Your task to perform on an android device: turn on improve location accuracy Image 0: 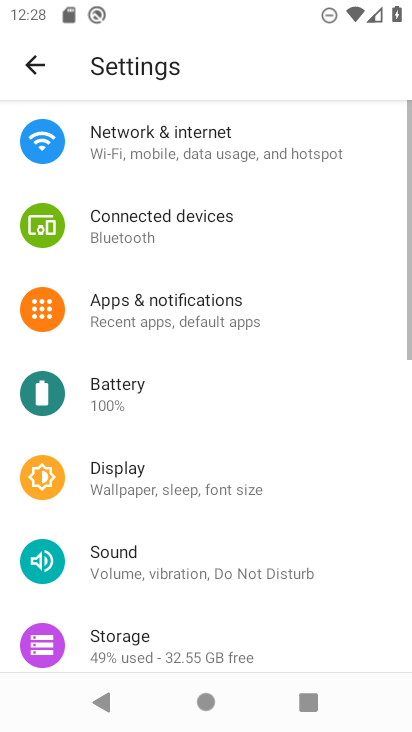
Step 0: press home button
Your task to perform on an android device: turn on improve location accuracy Image 1: 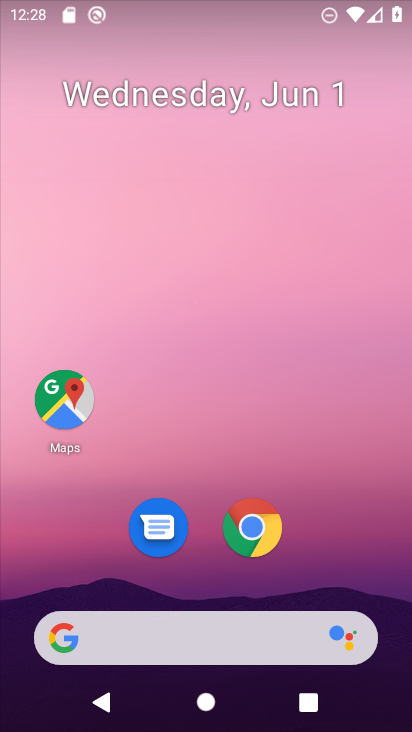
Step 1: click (65, 411)
Your task to perform on an android device: turn on improve location accuracy Image 2: 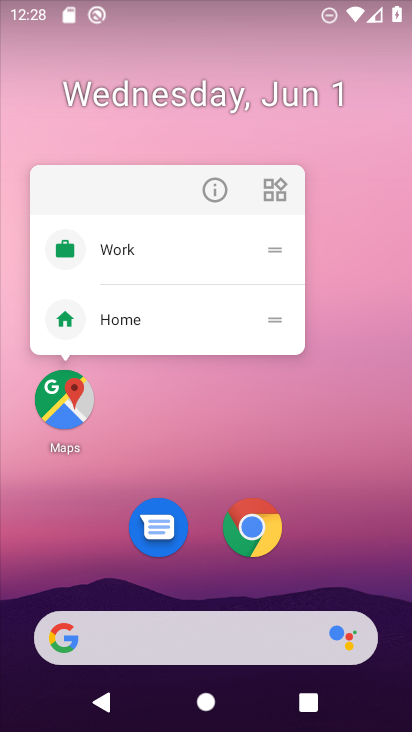
Step 2: click (128, 405)
Your task to perform on an android device: turn on improve location accuracy Image 3: 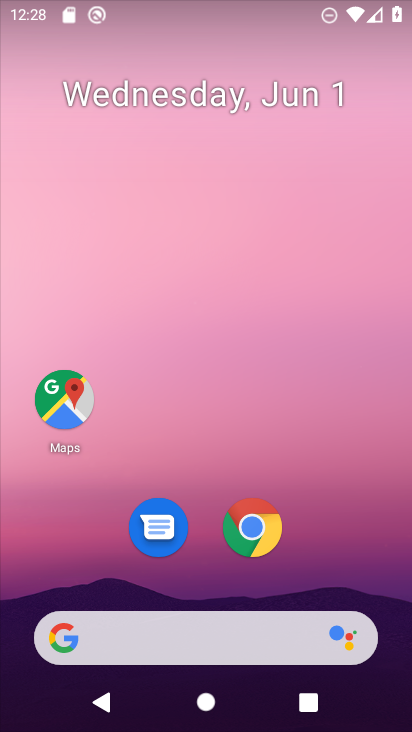
Step 3: click (43, 403)
Your task to perform on an android device: turn on improve location accuracy Image 4: 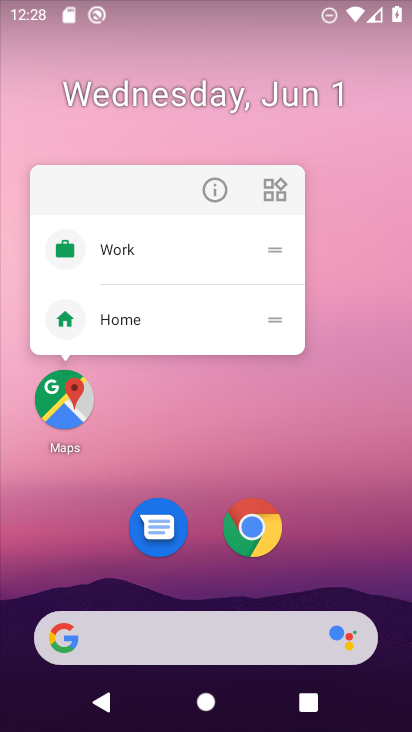
Step 4: click (43, 403)
Your task to perform on an android device: turn on improve location accuracy Image 5: 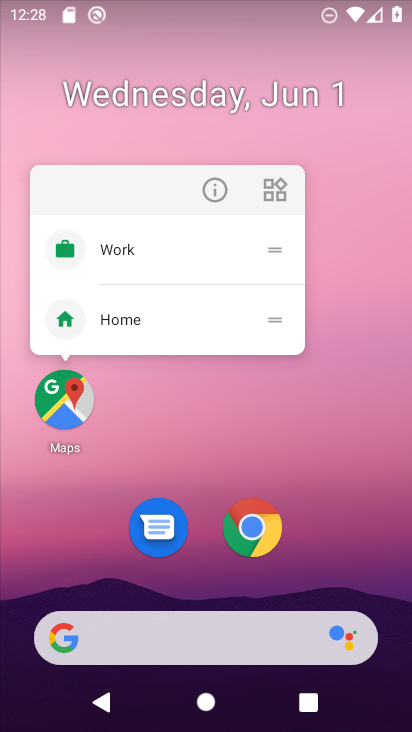
Step 5: click (43, 405)
Your task to perform on an android device: turn on improve location accuracy Image 6: 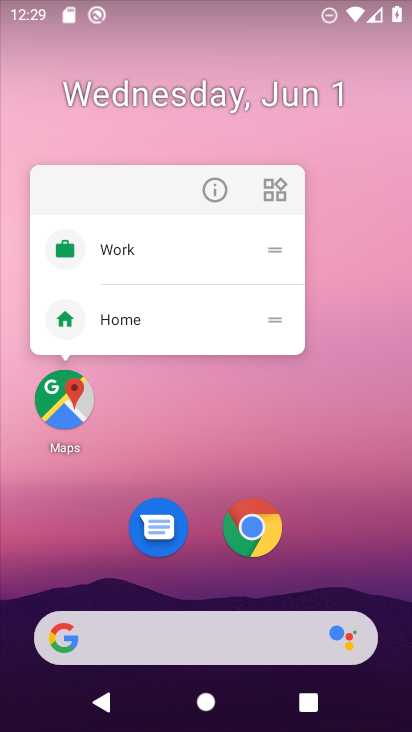
Step 6: click (80, 395)
Your task to perform on an android device: turn on improve location accuracy Image 7: 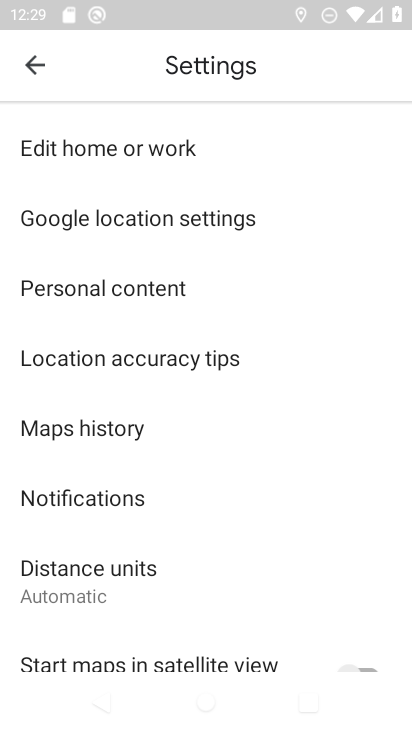
Step 7: click (191, 221)
Your task to perform on an android device: turn on improve location accuracy Image 8: 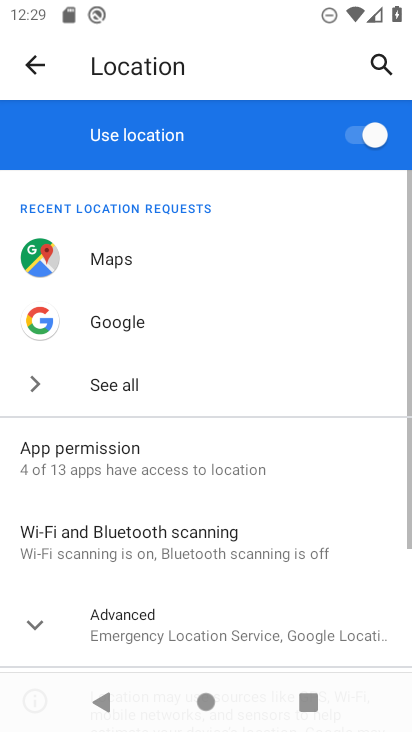
Step 8: click (274, 553)
Your task to perform on an android device: turn on improve location accuracy Image 9: 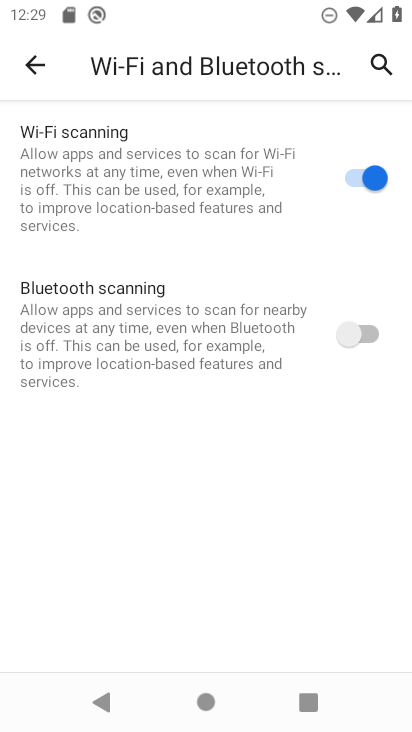
Step 9: click (29, 61)
Your task to perform on an android device: turn on improve location accuracy Image 10: 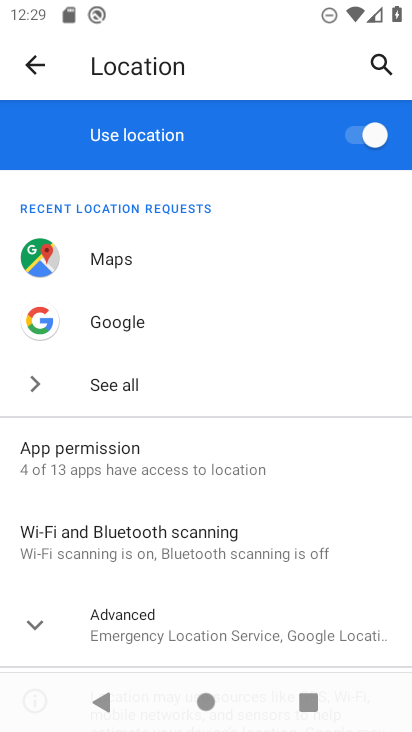
Step 10: click (303, 625)
Your task to perform on an android device: turn on improve location accuracy Image 11: 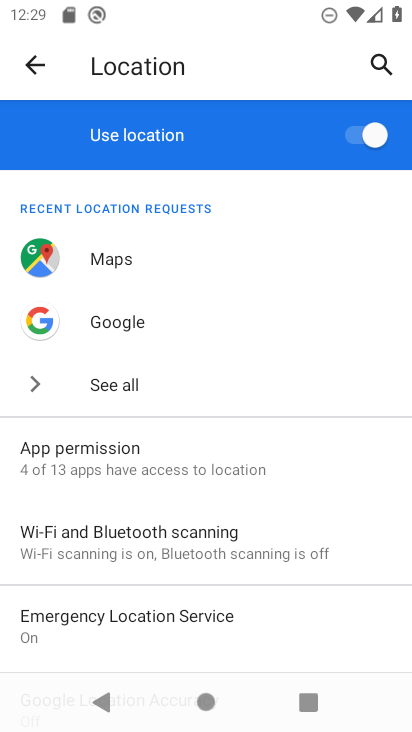
Step 11: drag from (292, 555) to (347, 139)
Your task to perform on an android device: turn on improve location accuracy Image 12: 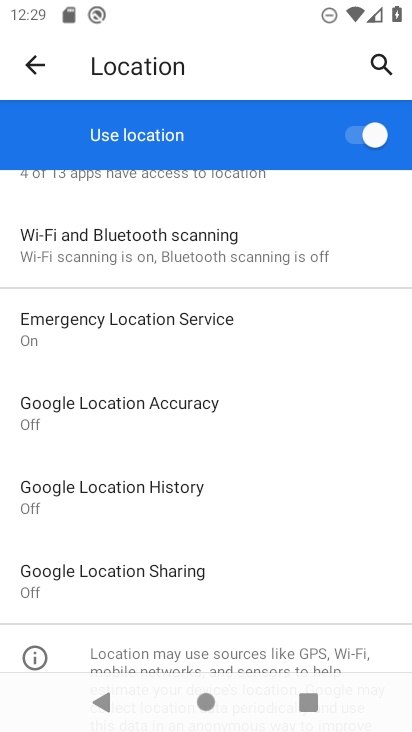
Step 12: click (206, 397)
Your task to perform on an android device: turn on improve location accuracy Image 13: 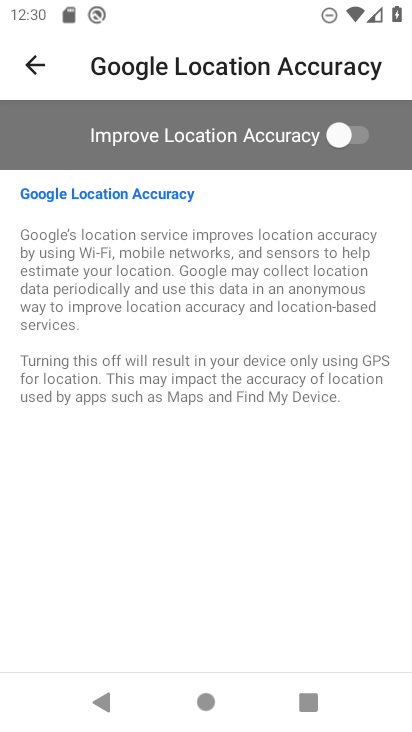
Step 13: click (347, 135)
Your task to perform on an android device: turn on improve location accuracy Image 14: 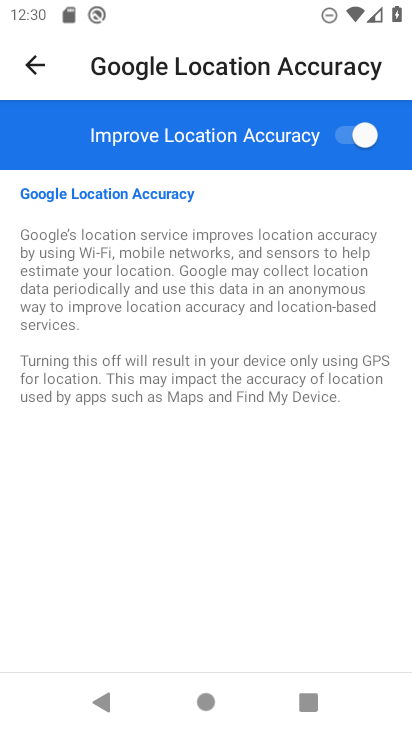
Step 14: task complete